Your task to perform on an android device: What's the weather going to be this weekend? Image 0: 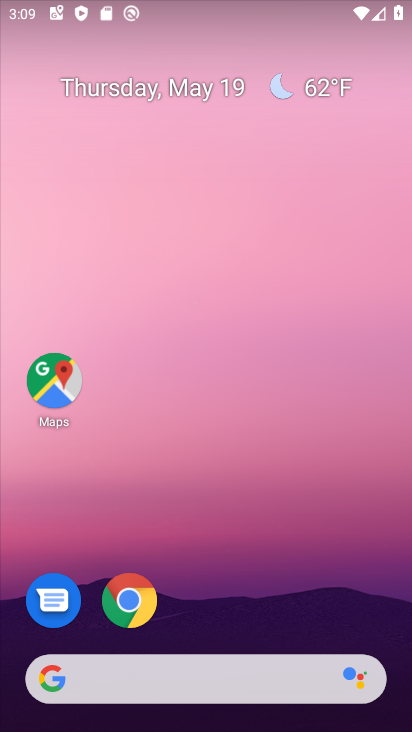
Step 0: click (179, 684)
Your task to perform on an android device: What's the weather going to be this weekend? Image 1: 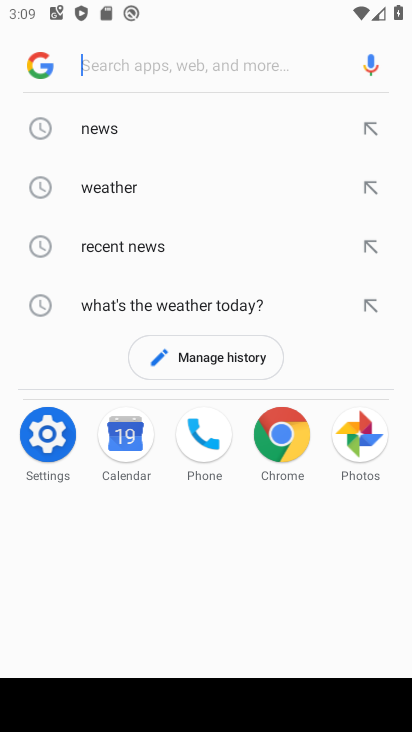
Step 1: click (145, 189)
Your task to perform on an android device: What's the weather going to be this weekend? Image 2: 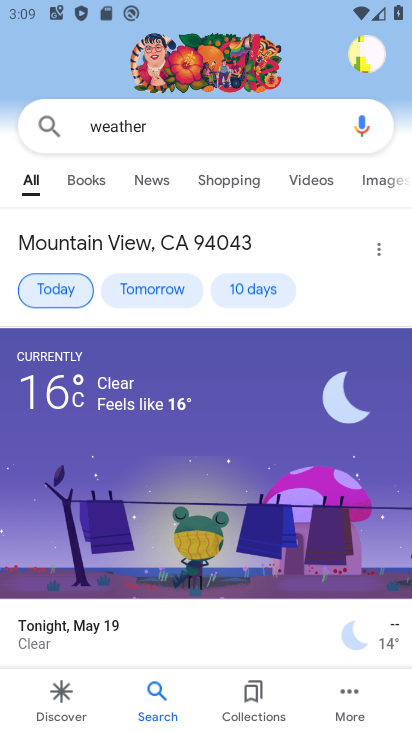
Step 2: click (273, 292)
Your task to perform on an android device: What's the weather going to be this weekend? Image 3: 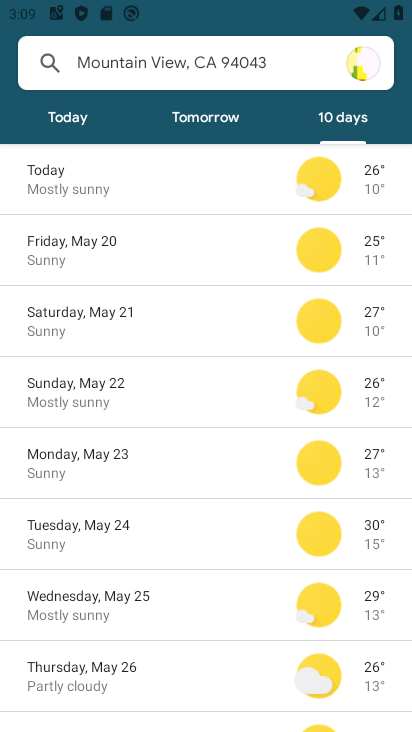
Step 3: task complete